Your task to perform on an android device: When is my next appointment? Image 0: 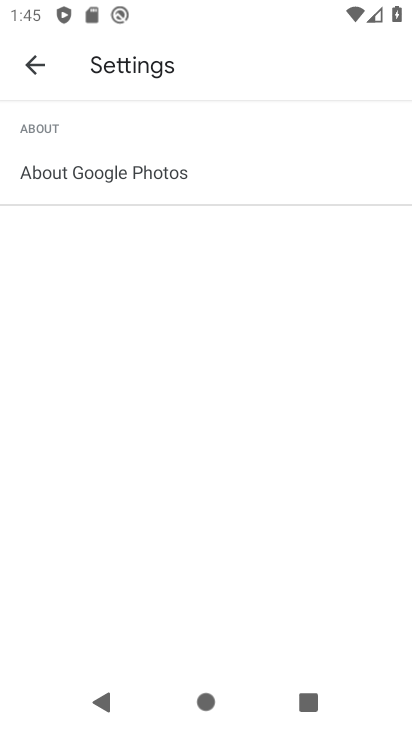
Step 0: press home button
Your task to perform on an android device: When is my next appointment? Image 1: 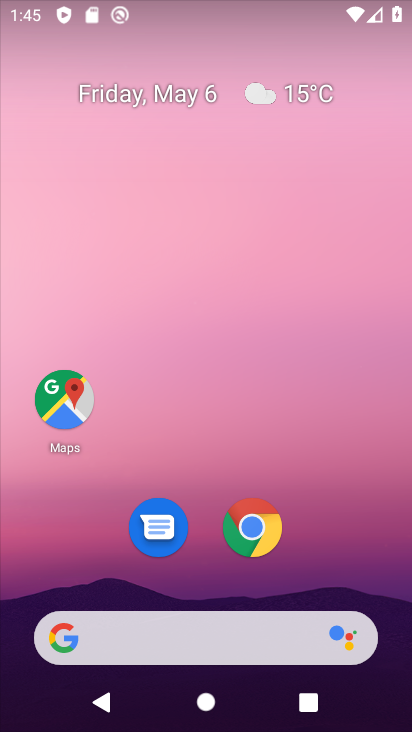
Step 1: drag from (330, 562) to (119, 124)
Your task to perform on an android device: When is my next appointment? Image 2: 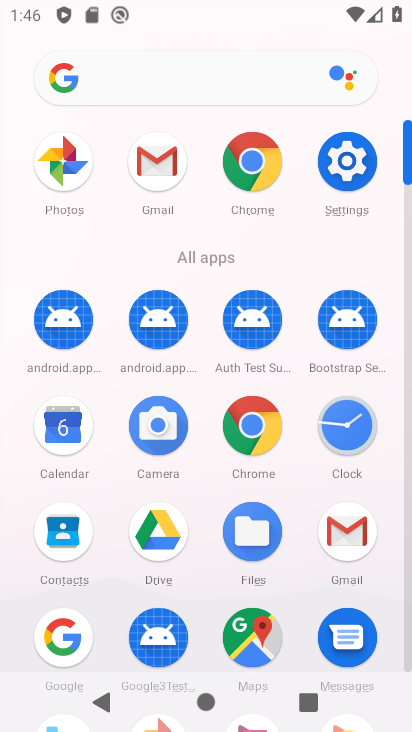
Step 2: click (52, 444)
Your task to perform on an android device: When is my next appointment? Image 3: 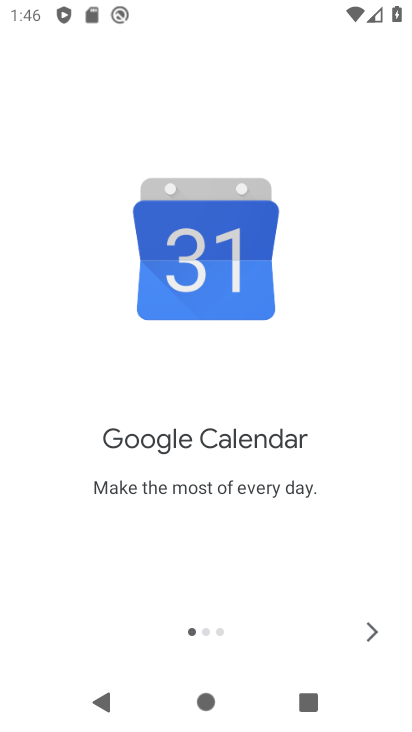
Step 3: click (377, 638)
Your task to perform on an android device: When is my next appointment? Image 4: 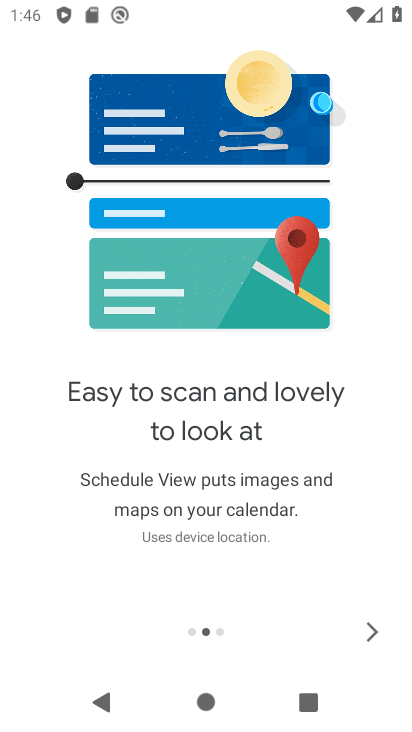
Step 4: click (370, 629)
Your task to perform on an android device: When is my next appointment? Image 5: 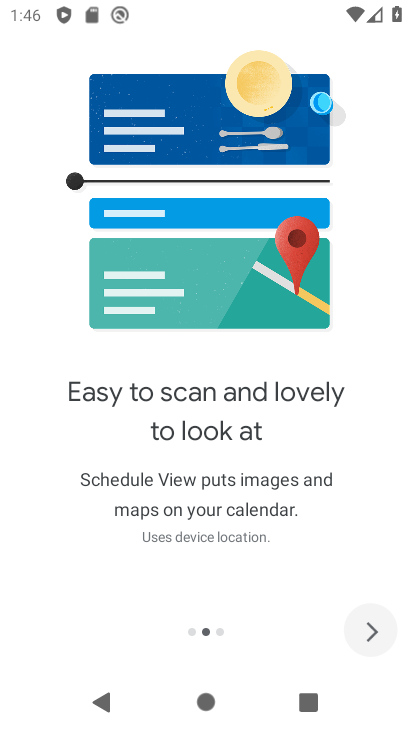
Step 5: click (370, 629)
Your task to perform on an android device: When is my next appointment? Image 6: 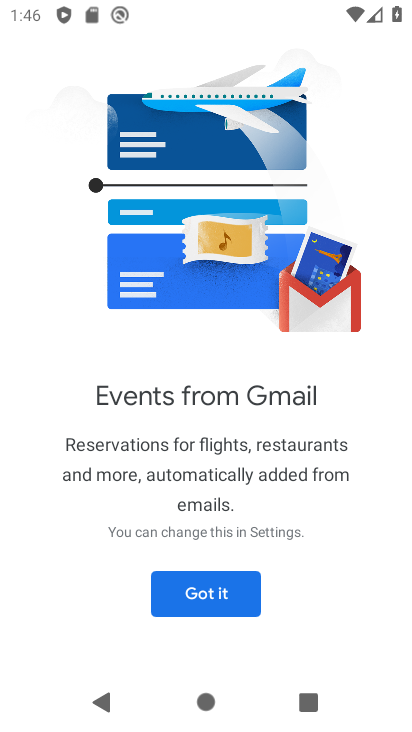
Step 6: click (370, 629)
Your task to perform on an android device: When is my next appointment? Image 7: 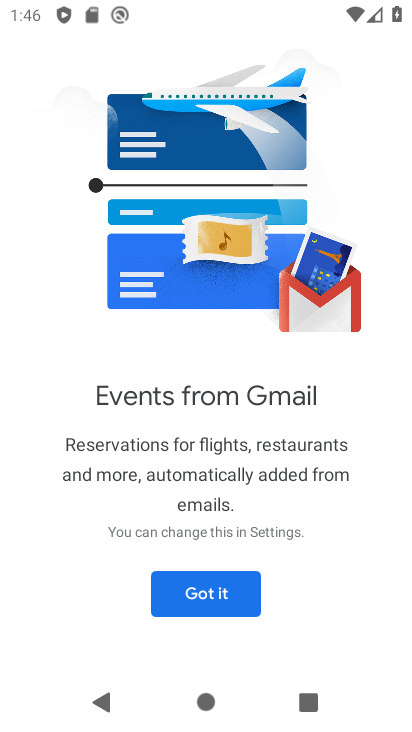
Step 7: click (201, 596)
Your task to perform on an android device: When is my next appointment? Image 8: 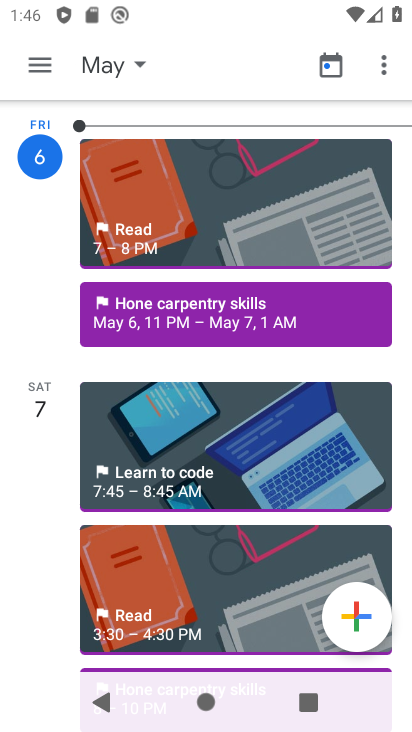
Step 8: task complete